Your task to perform on an android device: Search for vegetarian restaurants on Maps Image 0: 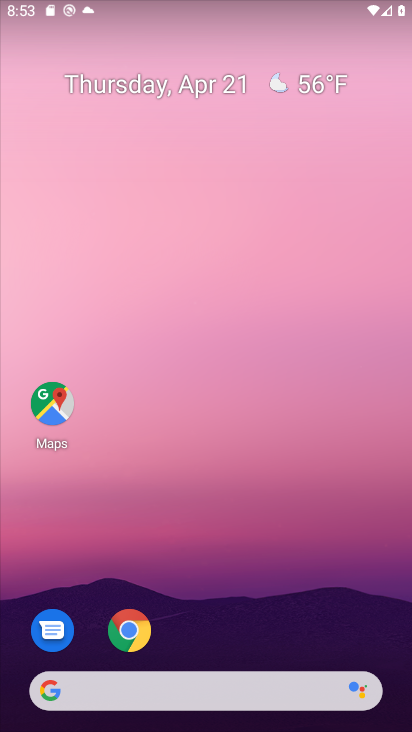
Step 0: click (45, 392)
Your task to perform on an android device: Search for vegetarian restaurants on Maps Image 1: 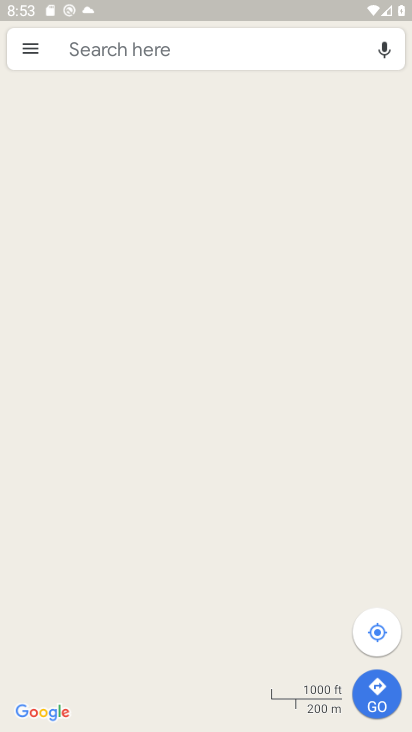
Step 1: click (206, 37)
Your task to perform on an android device: Search for vegetarian restaurants on Maps Image 2: 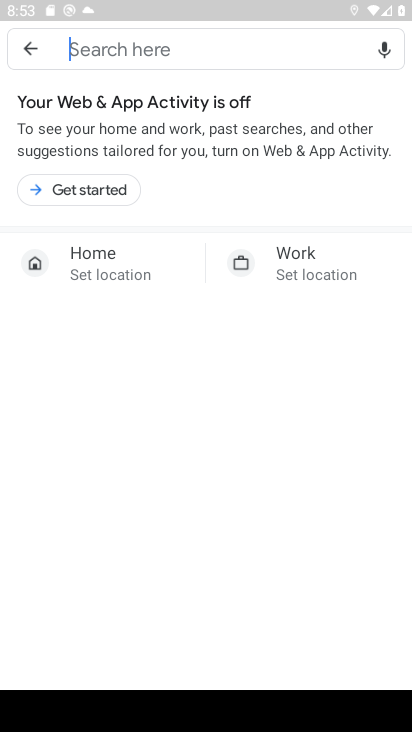
Step 2: type "vegetarian restaurants"
Your task to perform on an android device: Search for vegetarian restaurants on Maps Image 3: 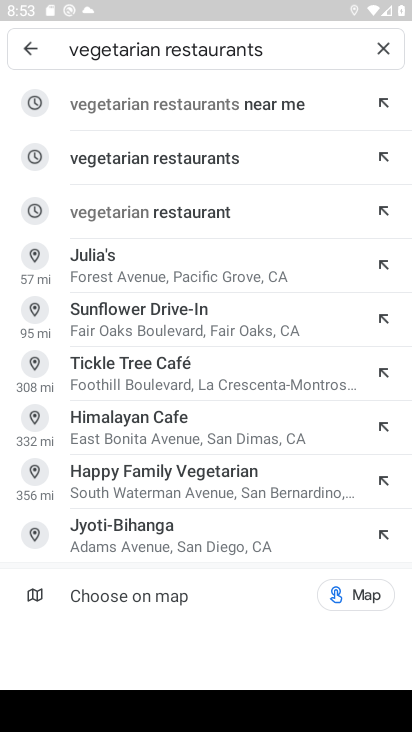
Step 3: click (214, 116)
Your task to perform on an android device: Search for vegetarian restaurants on Maps Image 4: 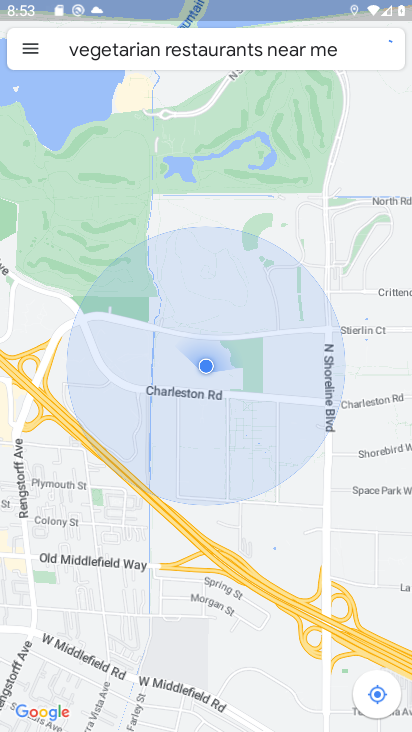
Step 4: task complete